Your task to perform on an android device: Open Google Maps Image 0: 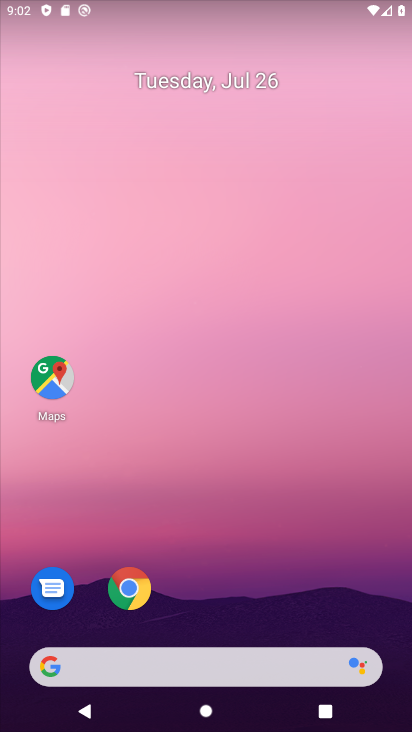
Step 0: click (50, 388)
Your task to perform on an android device: Open Google Maps Image 1: 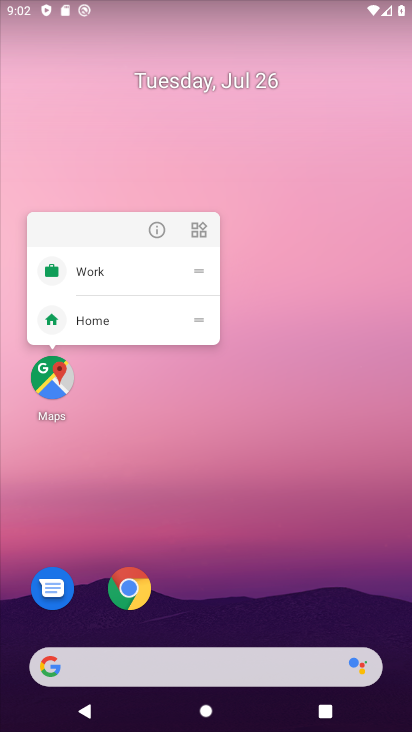
Step 1: click (50, 388)
Your task to perform on an android device: Open Google Maps Image 2: 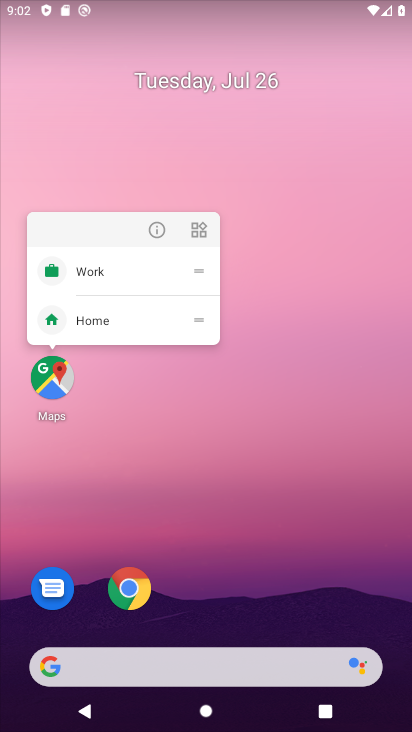
Step 2: click (50, 369)
Your task to perform on an android device: Open Google Maps Image 3: 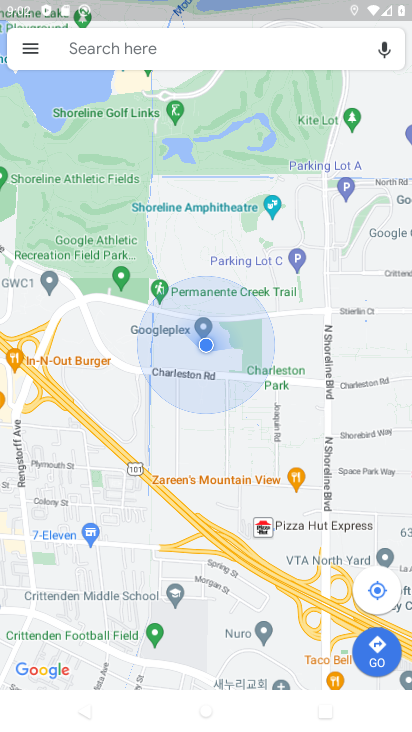
Step 3: task complete